Your task to perform on an android device: Go to Wikipedia Image 0: 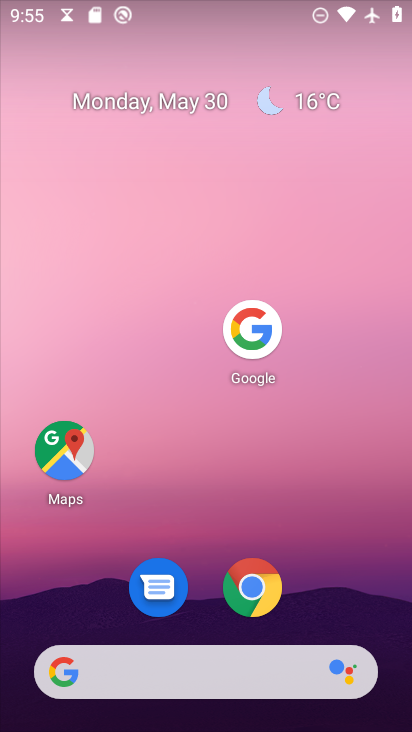
Step 0: press home button
Your task to perform on an android device: Go to Wikipedia Image 1: 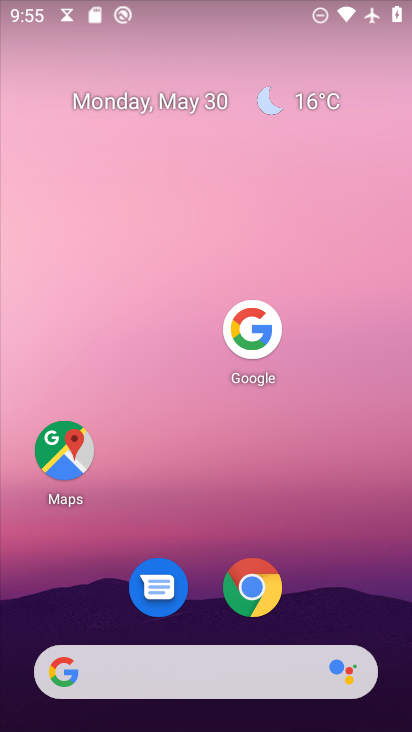
Step 1: click (256, 591)
Your task to perform on an android device: Go to Wikipedia Image 2: 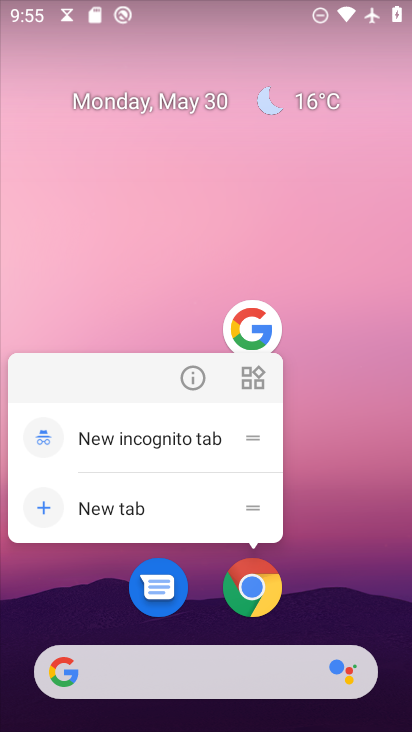
Step 2: click (263, 589)
Your task to perform on an android device: Go to Wikipedia Image 3: 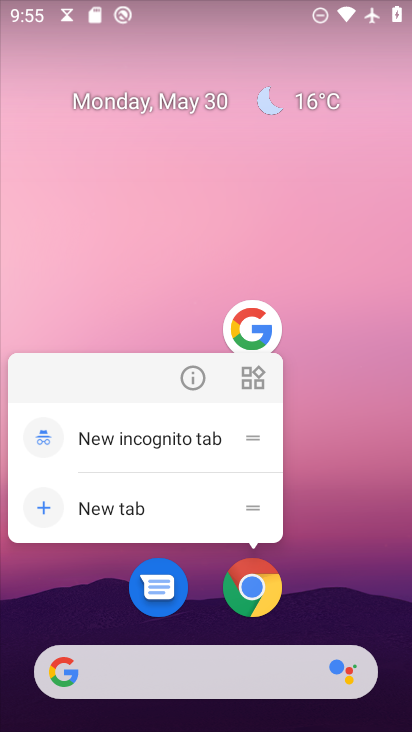
Step 3: click (256, 592)
Your task to perform on an android device: Go to Wikipedia Image 4: 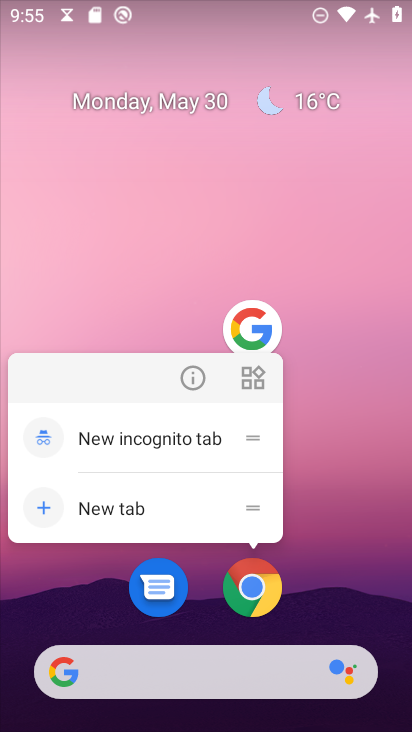
Step 4: click (251, 593)
Your task to perform on an android device: Go to Wikipedia Image 5: 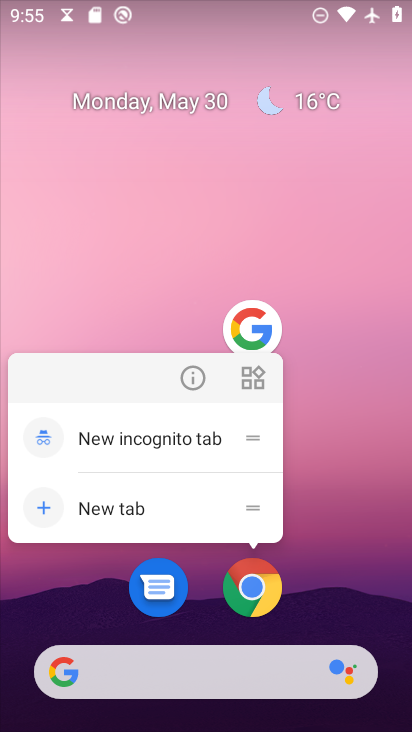
Step 5: click (246, 599)
Your task to perform on an android device: Go to Wikipedia Image 6: 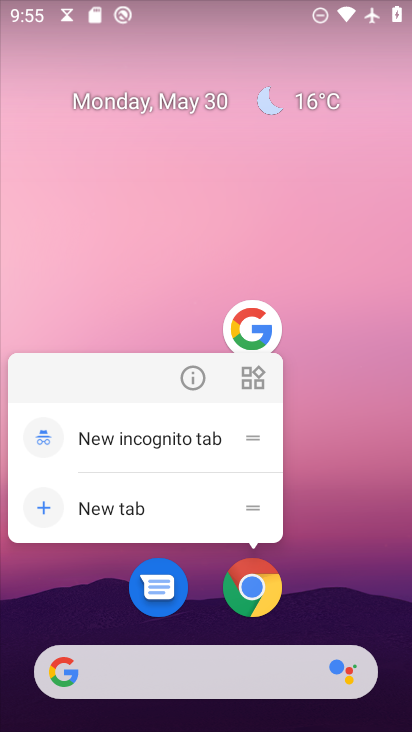
Step 6: click (248, 599)
Your task to perform on an android device: Go to Wikipedia Image 7: 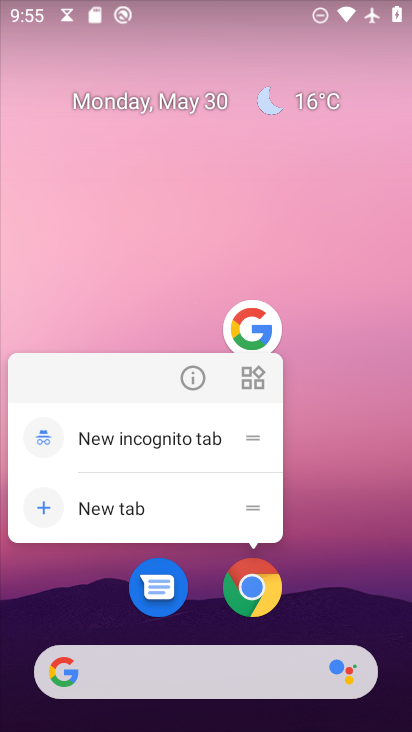
Step 7: click (248, 602)
Your task to perform on an android device: Go to Wikipedia Image 8: 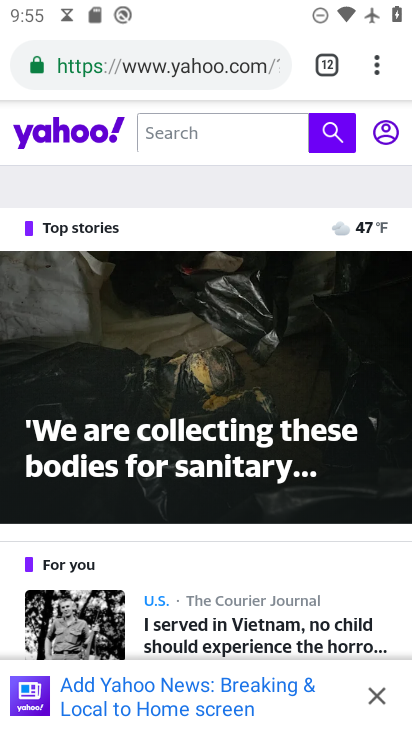
Step 8: drag from (373, 71) to (297, 128)
Your task to perform on an android device: Go to Wikipedia Image 9: 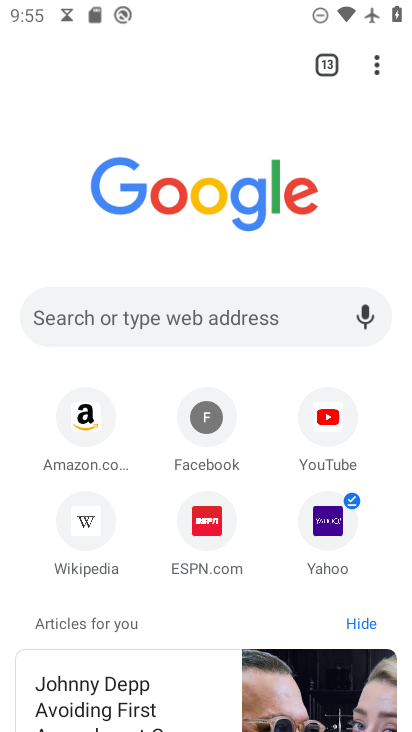
Step 9: click (90, 531)
Your task to perform on an android device: Go to Wikipedia Image 10: 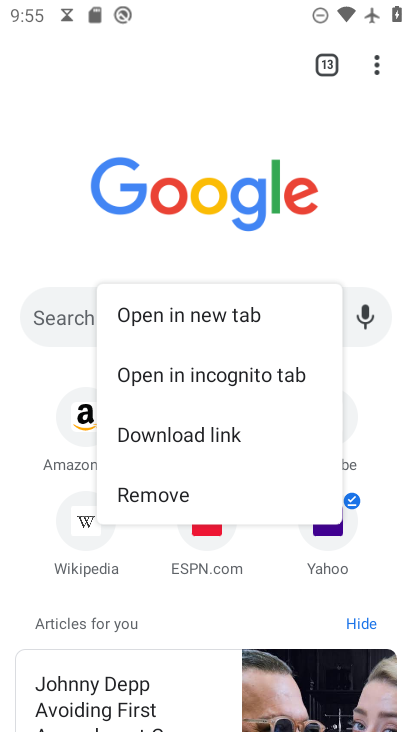
Step 10: click (82, 530)
Your task to perform on an android device: Go to Wikipedia Image 11: 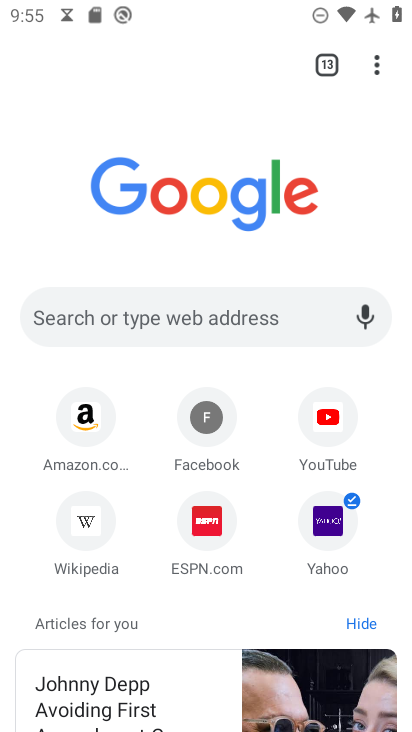
Step 11: click (91, 518)
Your task to perform on an android device: Go to Wikipedia Image 12: 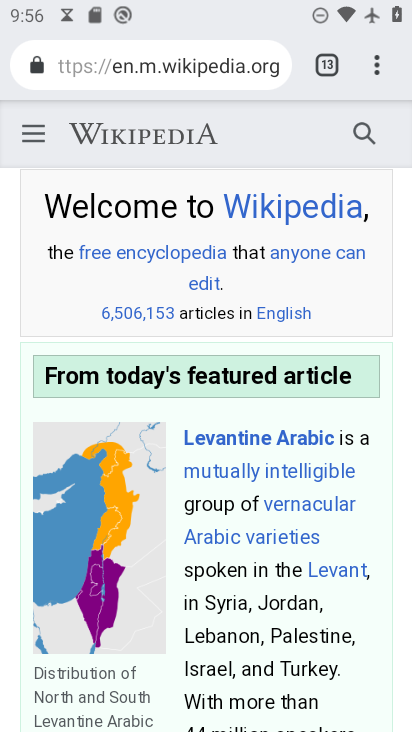
Step 12: task complete